Your task to perform on an android device: change the clock display to digital Image 0: 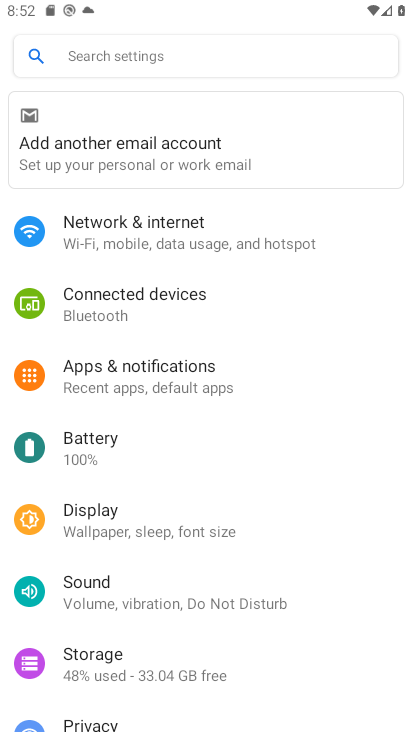
Step 0: drag from (121, 559) to (183, 285)
Your task to perform on an android device: change the clock display to digital Image 1: 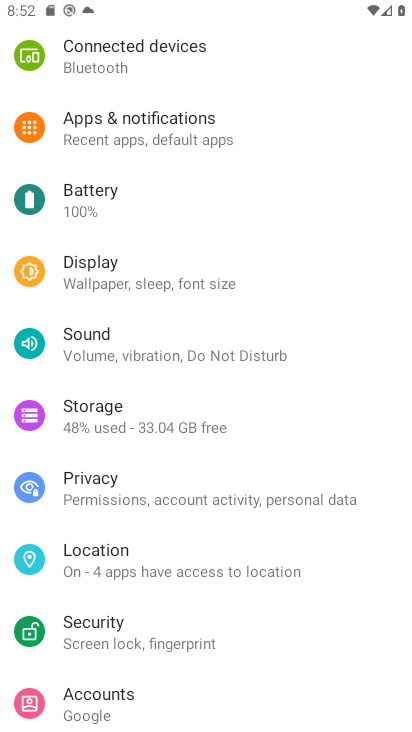
Step 1: click (109, 284)
Your task to perform on an android device: change the clock display to digital Image 2: 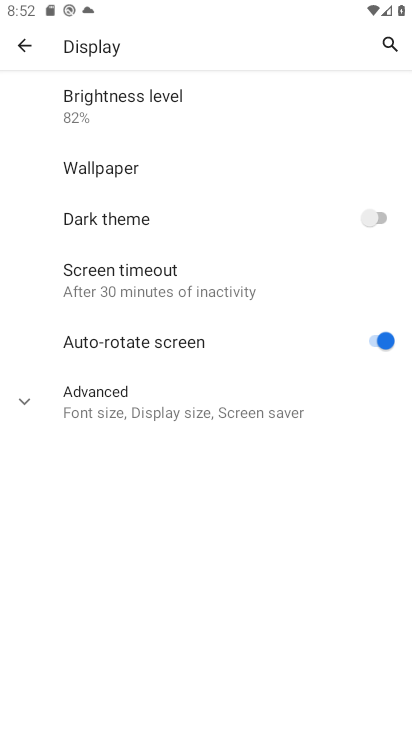
Step 2: click (134, 418)
Your task to perform on an android device: change the clock display to digital Image 3: 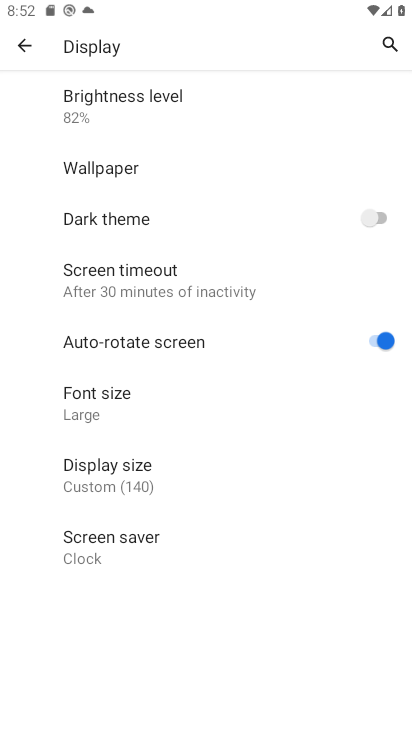
Step 3: click (118, 545)
Your task to perform on an android device: change the clock display to digital Image 4: 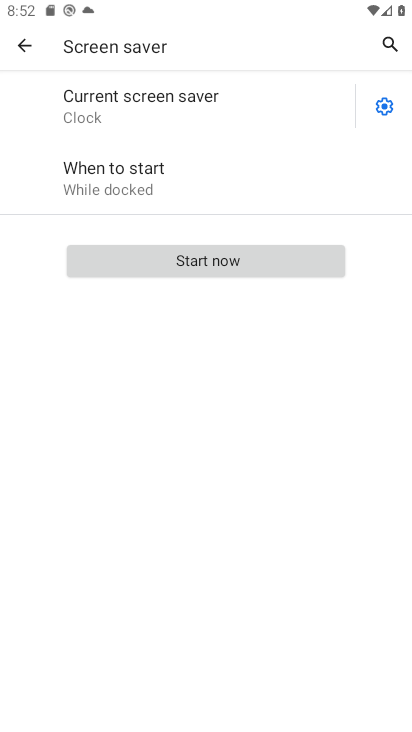
Step 4: click (379, 110)
Your task to perform on an android device: change the clock display to digital Image 5: 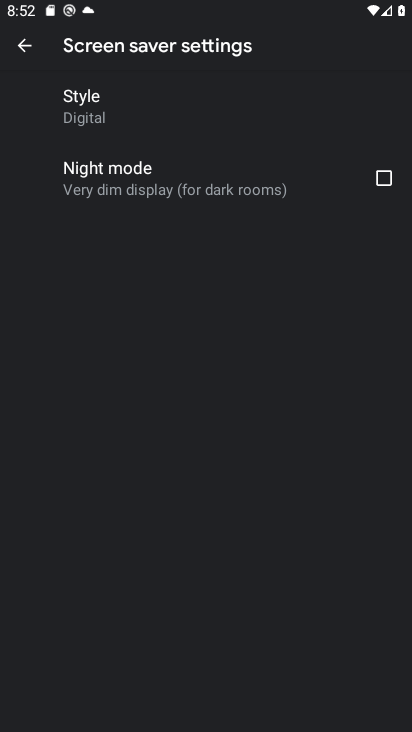
Step 5: click (148, 114)
Your task to perform on an android device: change the clock display to digital Image 6: 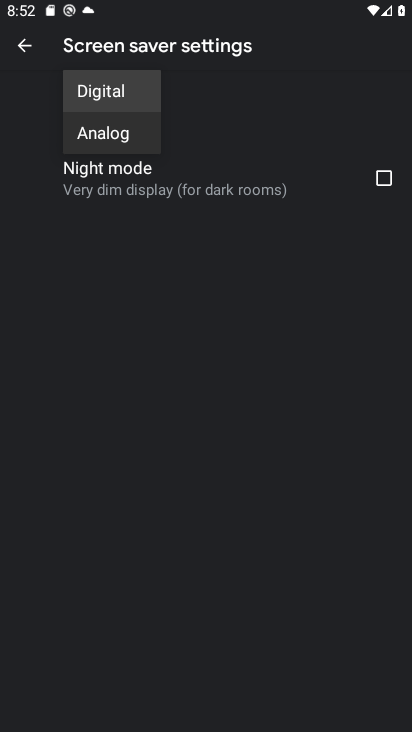
Step 6: press home button
Your task to perform on an android device: change the clock display to digital Image 7: 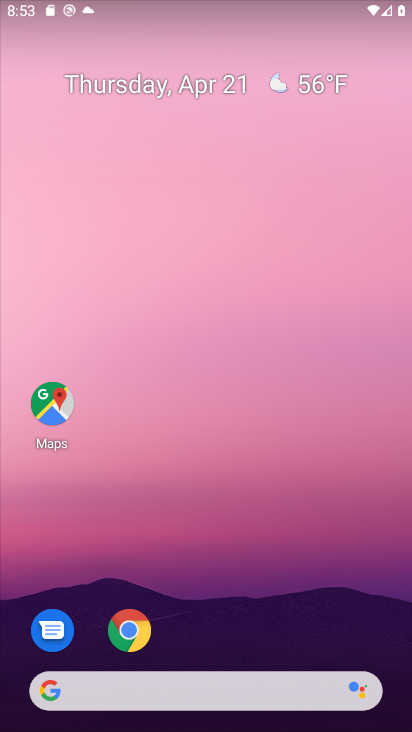
Step 7: drag from (214, 523) to (311, 44)
Your task to perform on an android device: change the clock display to digital Image 8: 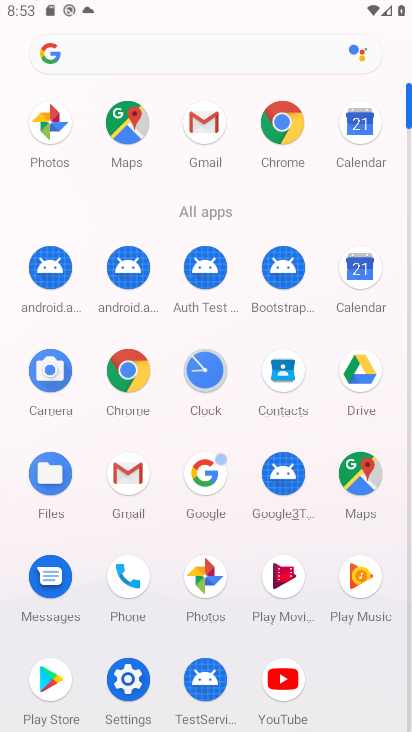
Step 8: click (209, 386)
Your task to perform on an android device: change the clock display to digital Image 9: 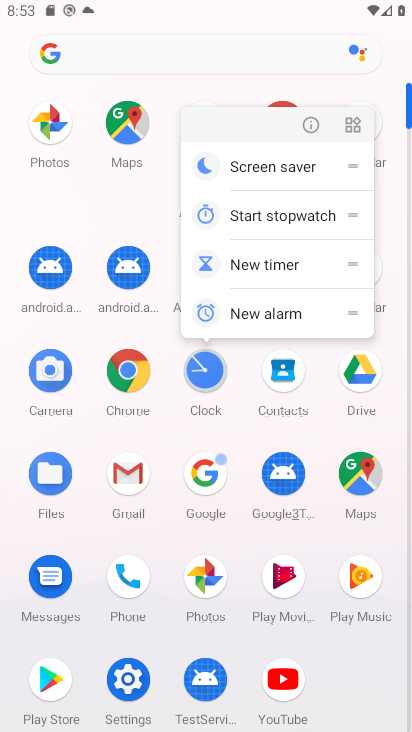
Step 9: click (209, 386)
Your task to perform on an android device: change the clock display to digital Image 10: 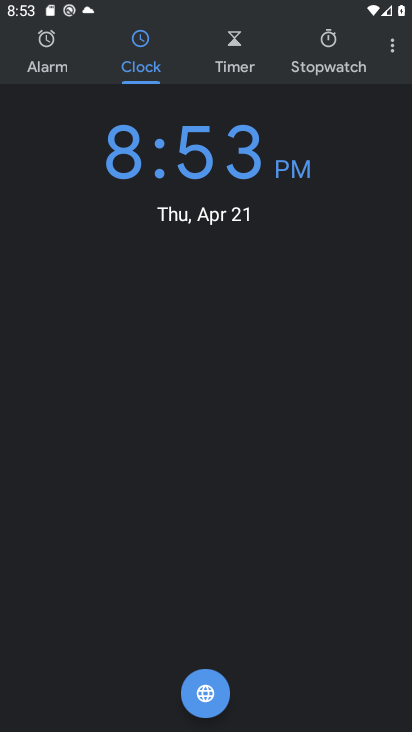
Step 10: click (391, 55)
Your task to perform on an android device: change the clock display to digital Image 11: 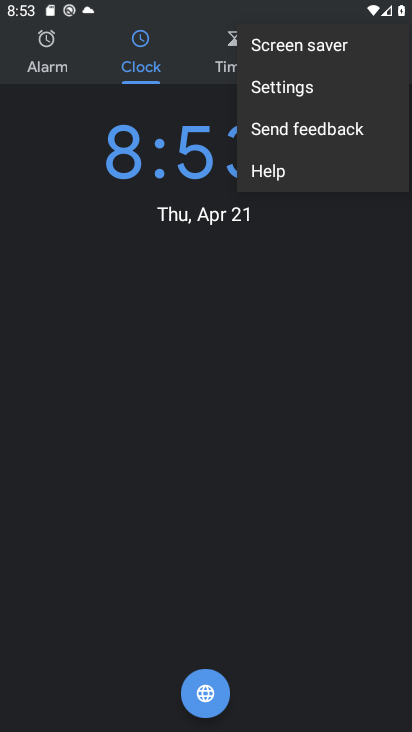
Step 11: click (284, 104)
Your task to perform on an android device: change the clock display to digital Image 12: 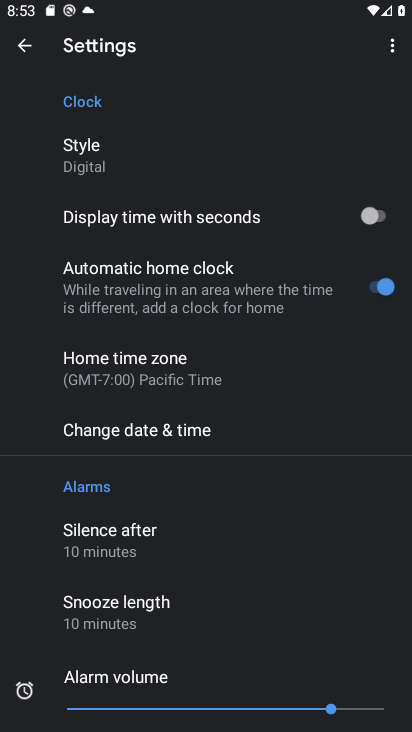
Step 12: task complete